Your task to perform on an android device: choose inbox layout in the gmail app Image 0: 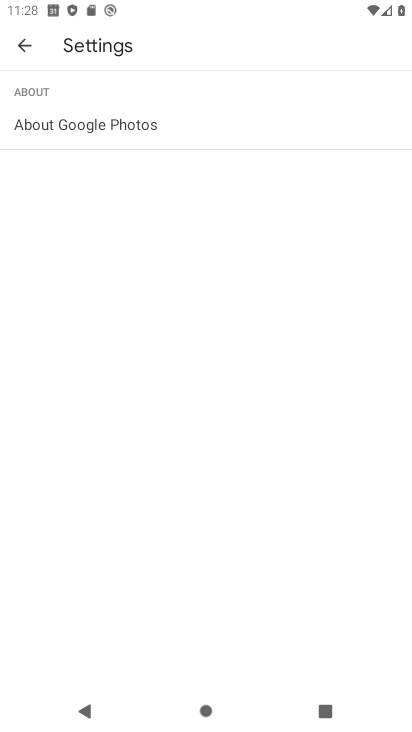
Step 0: press home button
Your task to perform on an android device: choose inbox layout in the gmail app Image 1: 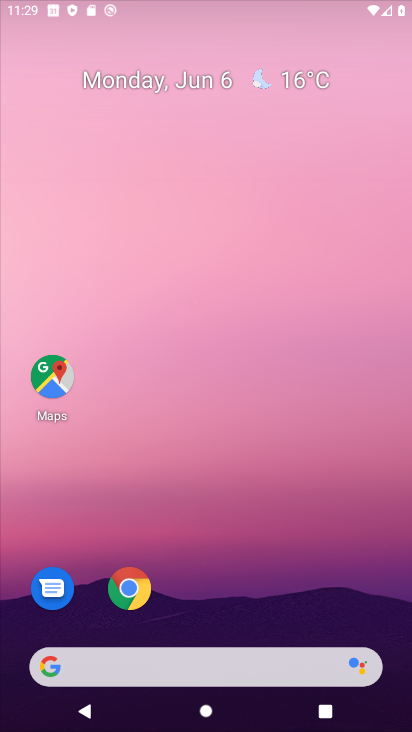
Step 1: drag from (404, 604) to (293, 60)
Your task to perform on an android device: choose inbox layout in the gmail app Image 2: 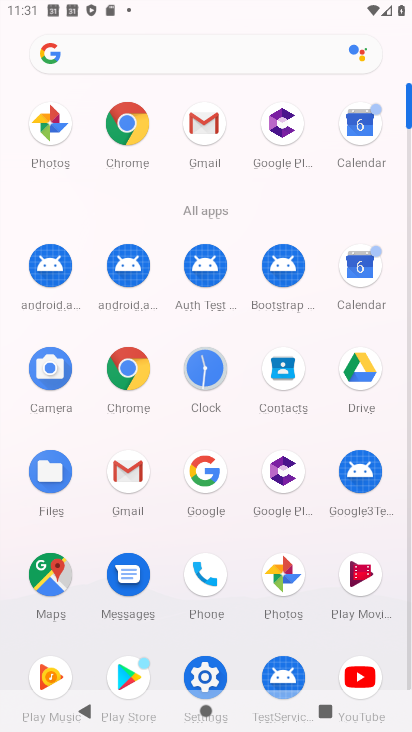
Step 2: click (131, 474)
Your task to perform on an android device: choose inbox layout in the gmail app Image 3: 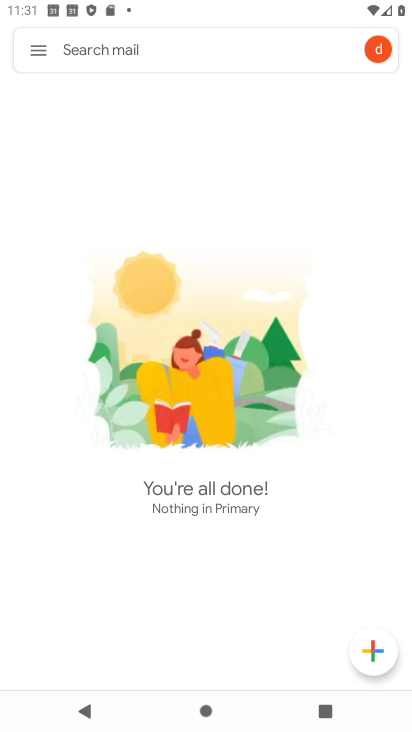
Step 3: task complete